Your task to perform on an android device: turn off data saver in the chrome app Image 0: 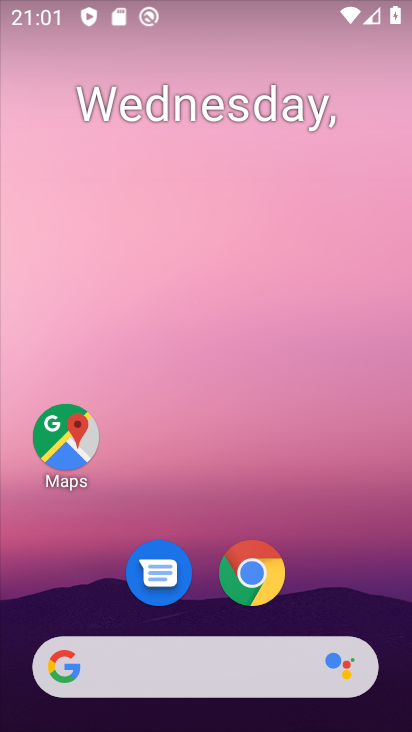
Step 0: click (244, 572)
Your task to perform on an android device: turn off data saver in the chrome app Image 1: 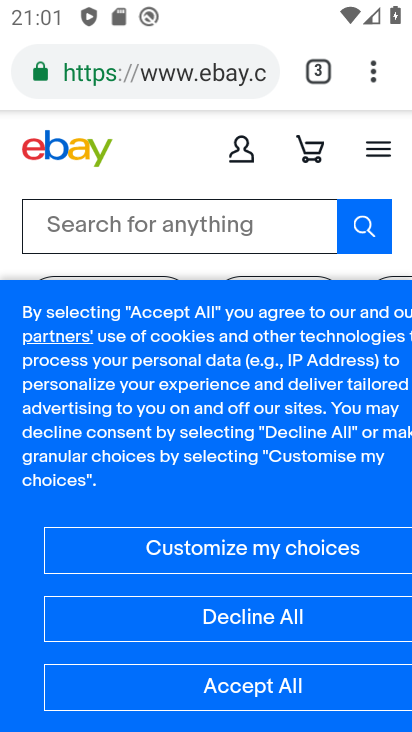
Step 1: click (368, 67)
Your task to perform on an android device: turn off data saver in the chrome app Image 2: 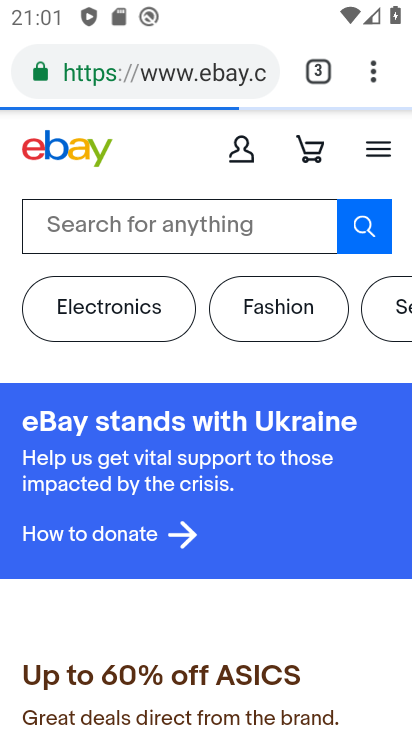
Step 2: click (368, 68)
Your task to perform on an android device: turn off data saver in the chrome app Image 3: 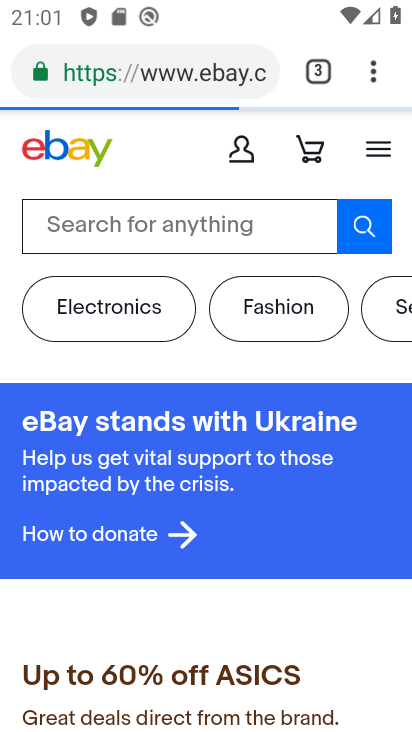
Step 3: click (368, 68)
Your task to perform on an android device: turn off data saver in the chrome app Image 4: 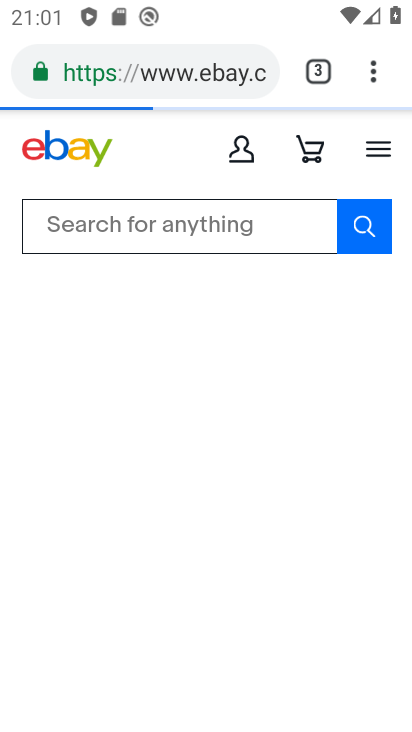
Step 4: click (368, 68)
Your task to perform on an android device: turn off data saver in the chrome app Image 5: 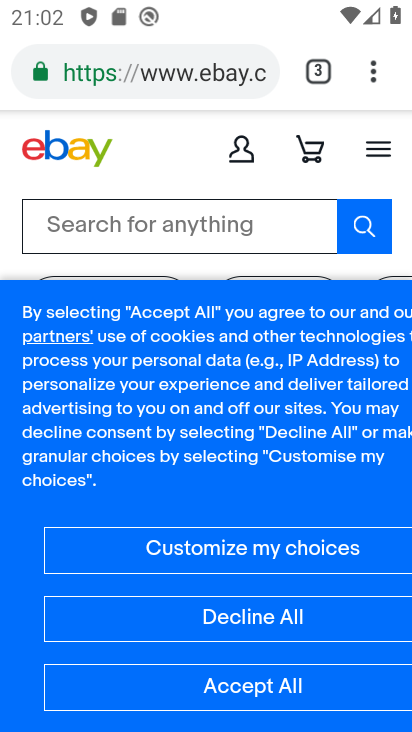
Step 5: click (373, 65)
Your task to perform on an android device: turn off data saver in the chrome app Image 6: 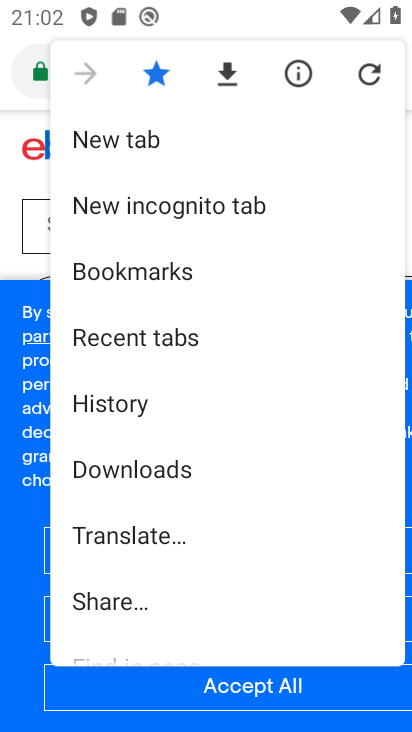
Step 6: drag from (291, 621) to (299, 285)
Your task to perform on an android device: turn off data saver in the chrome app Image 7: 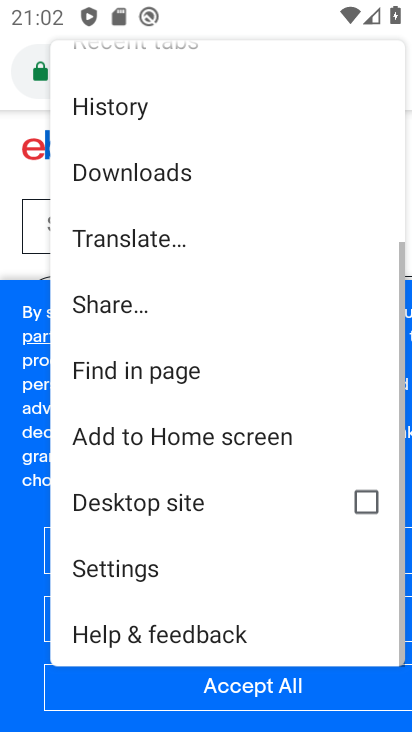
Step 7: drag from (297, 604) to (296, 266)
Your task to perform on an android device: turn off data saver in the chrome app Image 8: 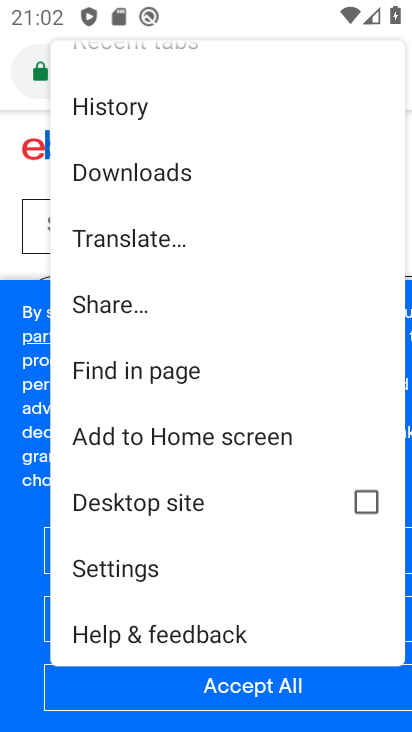
Step 8: click (121, 570)
Your task to perform on an android device: turn off data saver in the chrome app Image 9: 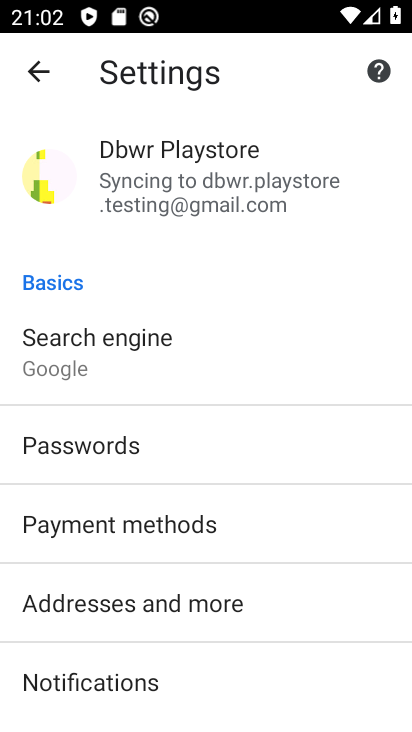
Step 9: drag from (302, 695) to (326, 365)
Your task to perform on an android device: turn off data saver in the chrome app Image 10: 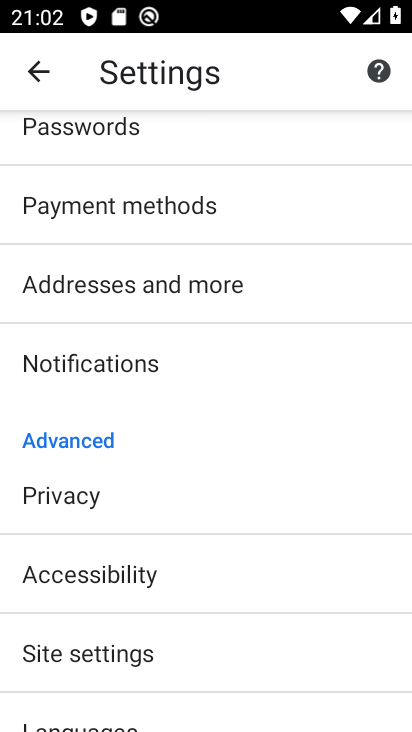
Step 10: drag from (238, 553) to (264, 272)
Your task to perform on an android device: turn off data saver in the chrome app Image 11: 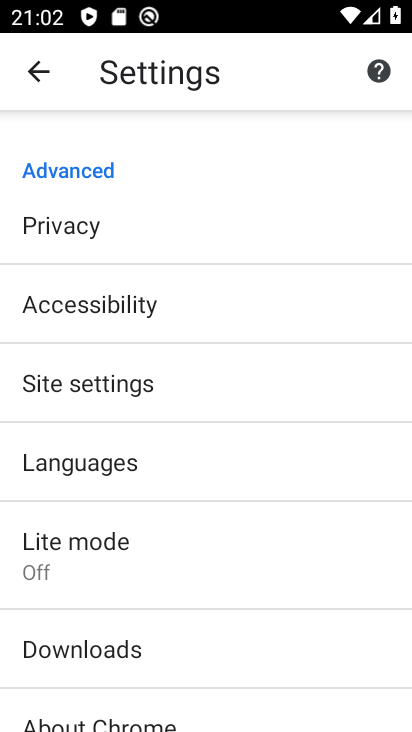
Step 11: click (71, 554)
Your task to perform on an android device: turn off data saver in the chrome app Image 12: 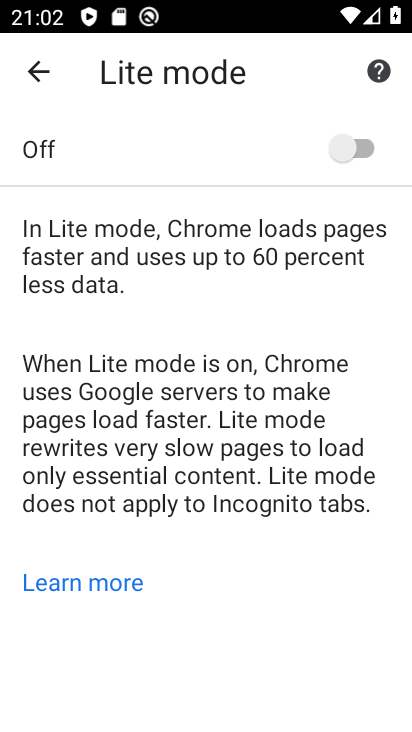
Step 12: task complete